Your task to perform on an android device: Go to eBay Image 0: 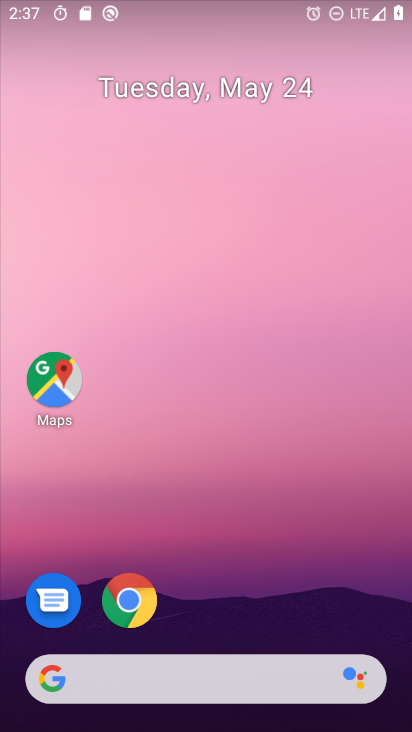
Step 0: click (128, 600)
Your task to perform on an android device: Go to eBay Image 1: 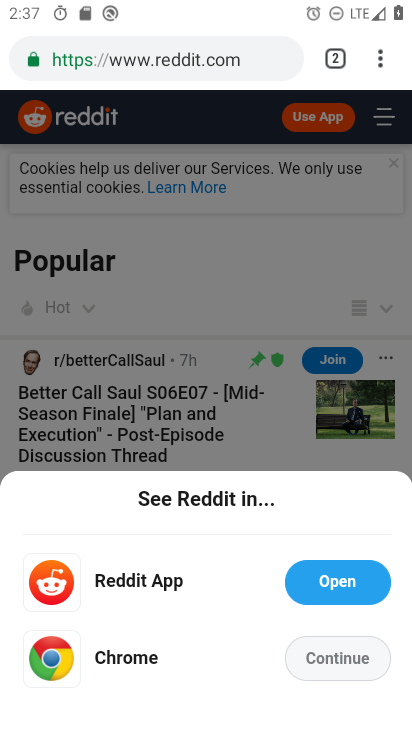
Step 1: click (213, 55)
Your task to perform on an android device: Go to eBay Image 2: 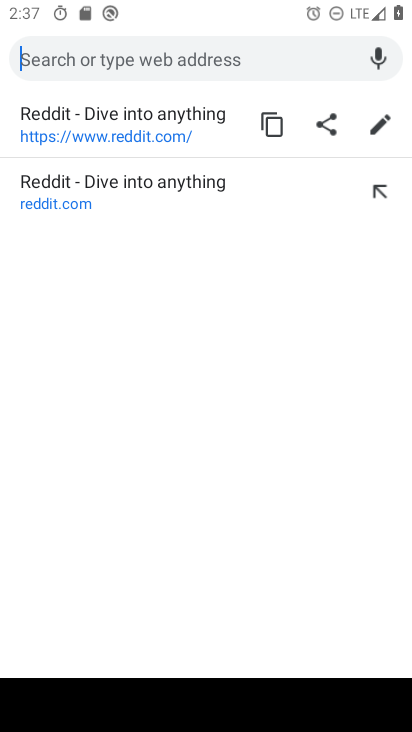
Step 2: type "ebay"
Your task to perform on an android device: Go to eBay Image 3: 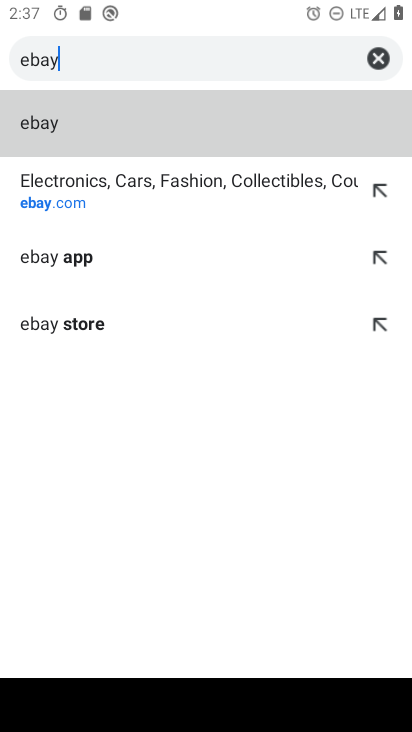
Step 3: click (56, 196)
Your task to perform on an android device: Go to eBay Image 4: 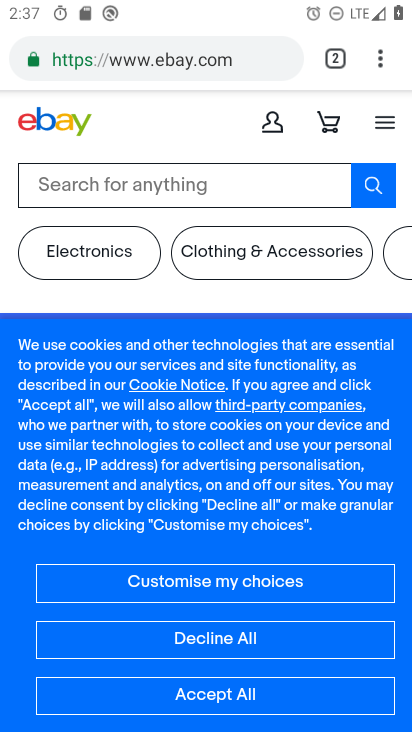
Step 4: task complete